Your task to perform on an android device: turn off location Image 0: 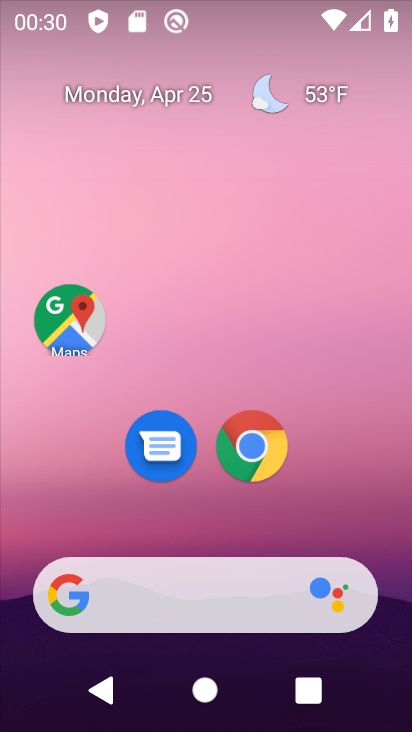
Step 0: click (346, 402)
Your task to perform on an android device: turn off location Image 1: 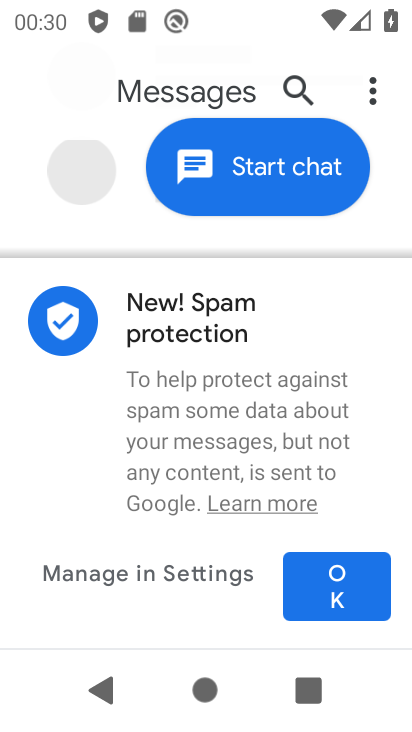
Step 1: press home button
Your task to perform on an android device: turn off location Image 2: 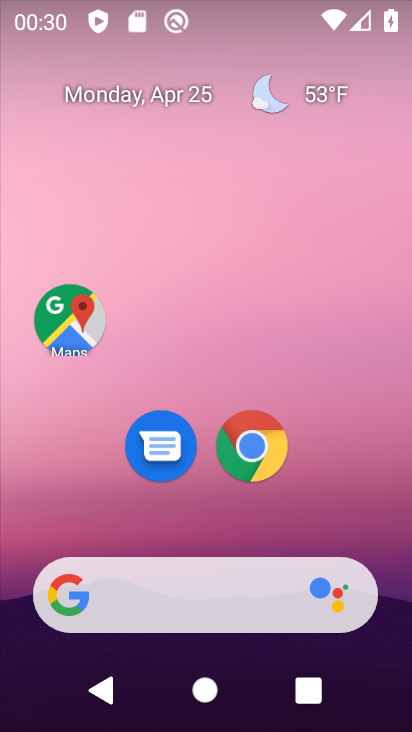
Step 2: drag from (216, 517) to (309, 0)
Your task to perform on an android device: turn off location Image 3: 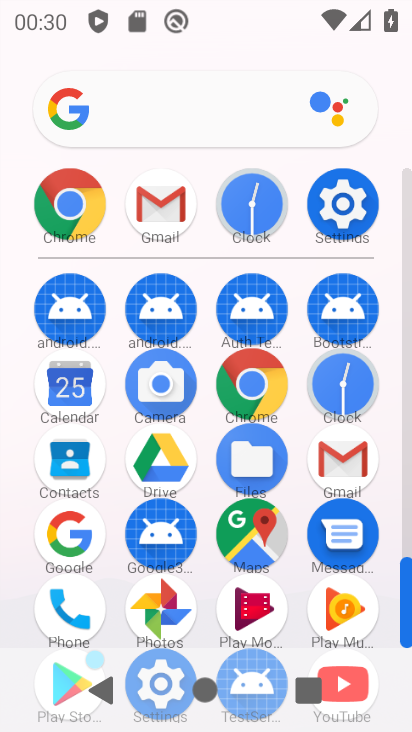
Step 3: click (349, 193)
Your task to perform on an android device: turn off location Image 4: 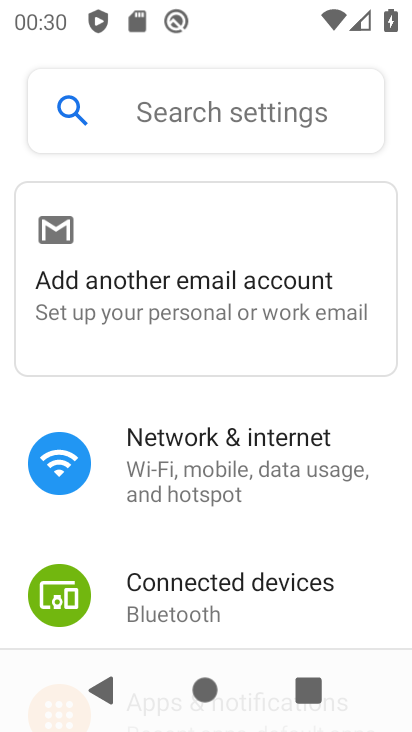
Step 4: drag from (179, 529) to (245, 137)
Your task to perform on an android device: turn off location Image 5: 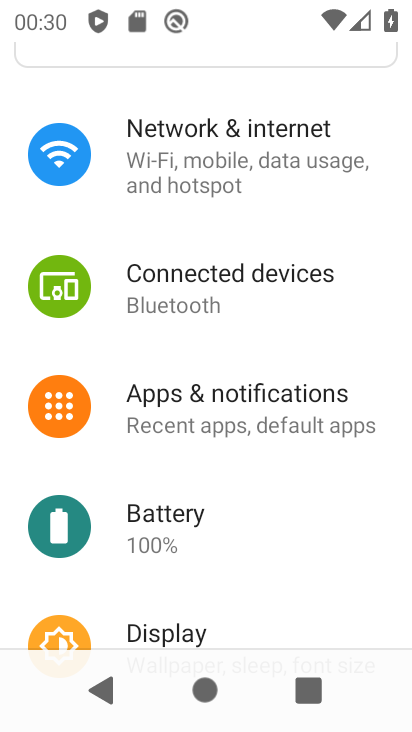
Step 5: drag from (192, 547) to (260, 136)
Your task to perform on an android device: turn off location Image 6: 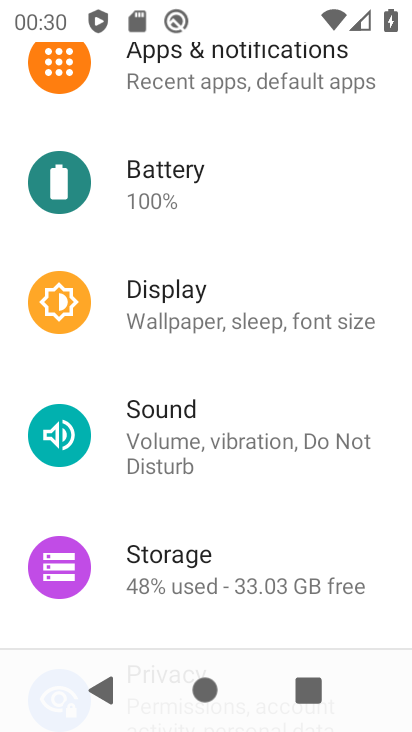
Step 6: drag from (185, 448) to (217, 118)
Your task to perform on an android device: turn off location Image 7: 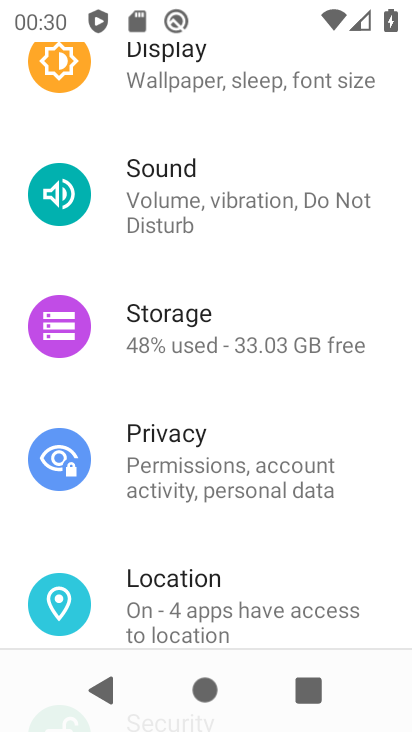
Step 7: click (180, 587)
Your task to perform on an android device: turn off location Image 8: 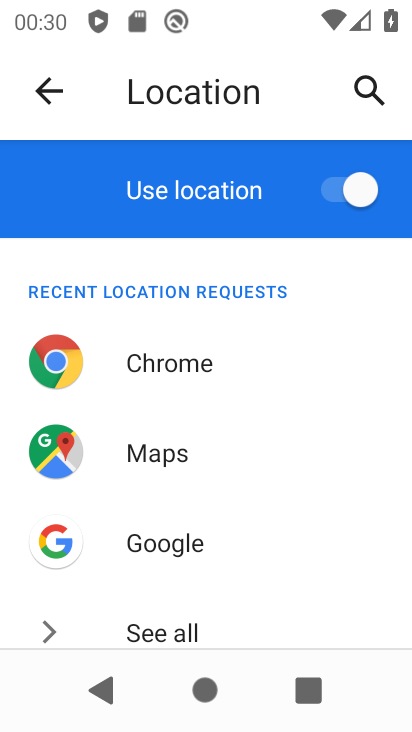
Step 8: click (325, 182)
Your task to perform on an android device: turn off location Image 9: 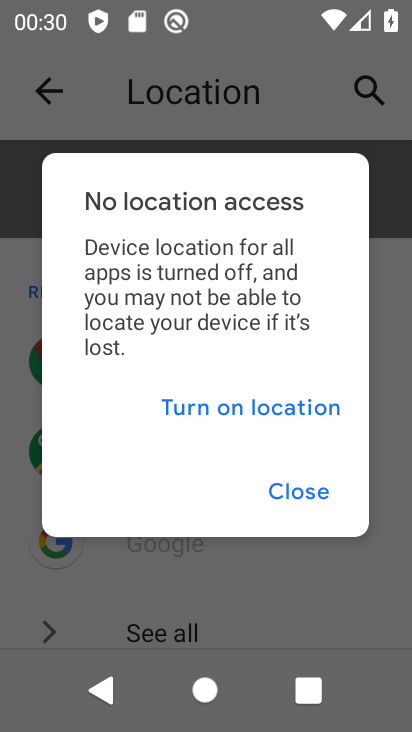
Step 9: click (295, 490)
Your task to perform on an android device: turn off location Image 10: 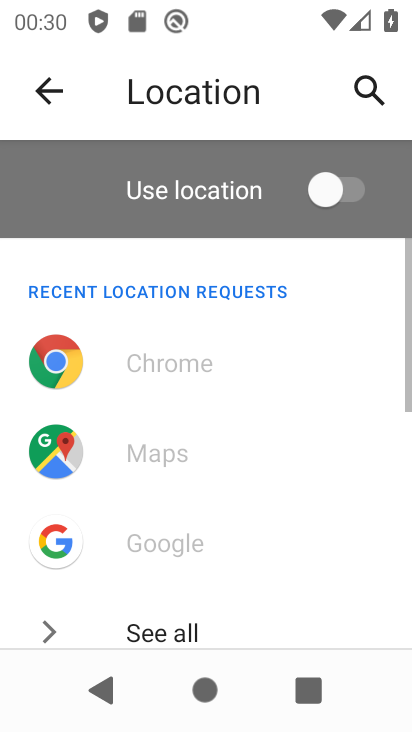
Step 10: task complete